Your task to perform on an android device: Check the new Jordans on Nike. Image 0: 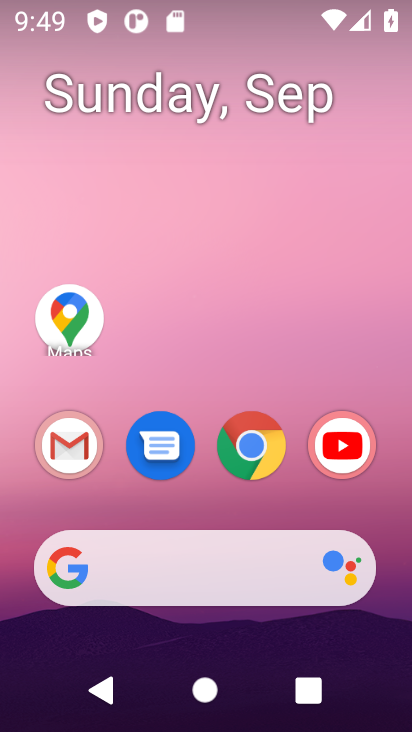
Step 0: drag from (62, 161) to (14, 318)
Your task to perform on an android device: Check the new Jordans on Nike. Image 1: 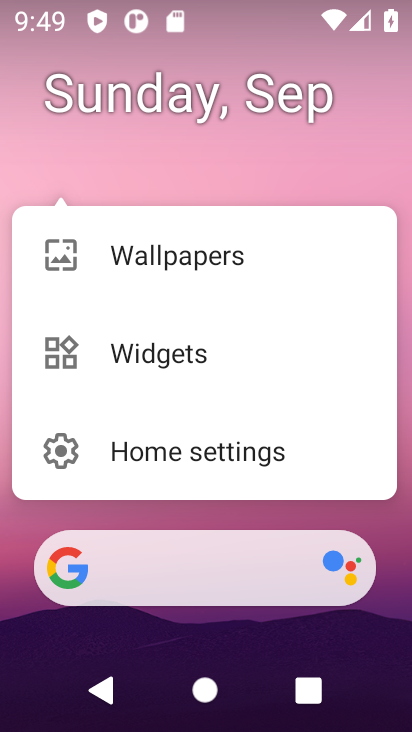
Step 1: click (275, 128)
Your task to perform on an android device: Check the new Jordans on Nike. Image 2: 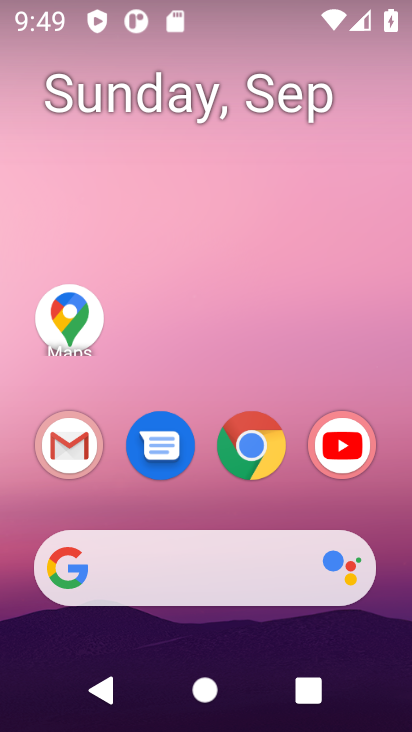
Step 2: drag from (134, 280) to (41, 95)
Your task to perform on an android device: Check the new Jordans on Nike. Image 3: 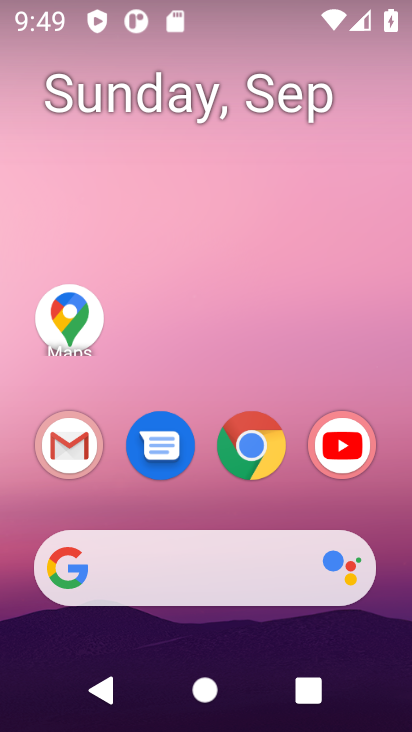
Step 3: drag from (279, 647) to (155, 54)
Your task to perform on an android device: Check the new Jordans on Nike. Image 4: 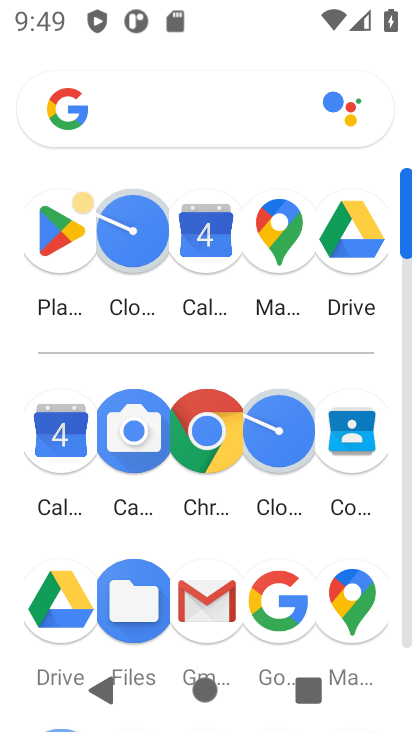
Step 4: click (207, 440)
Your task to perform on an android device: Check the new Jordans on Nike. Image 5: 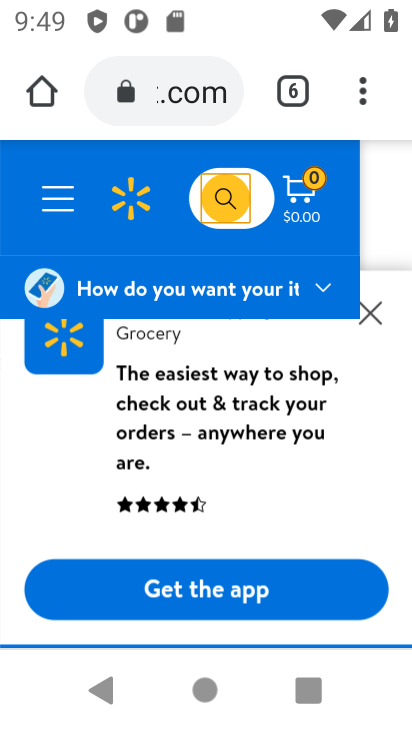
Step 5: click (166, 105)
Your task to perform on an android device: Check the new Jordans on Nike. Image 6: 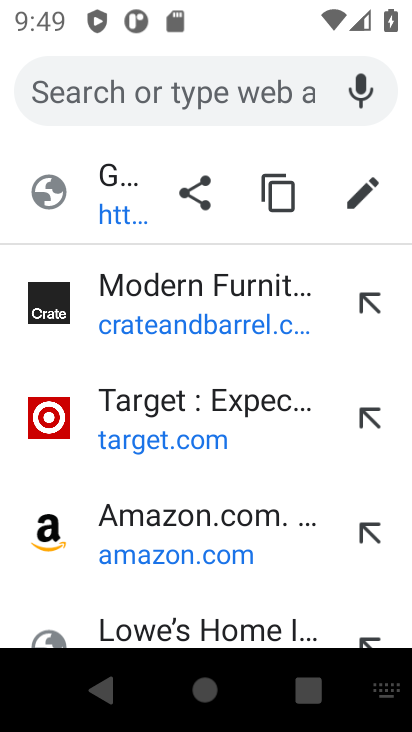
Step 6: click (213, 84)
Your task to perform on an android device: Check the new Jordans on Nike. Image 7: 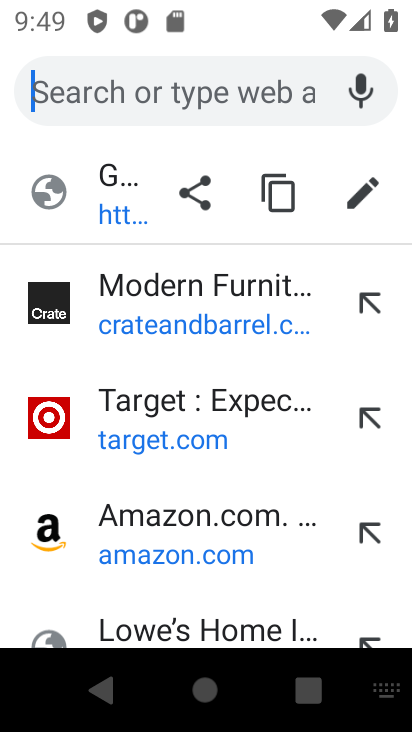
Step 7: type "Nike"
Your task to perform on an android device: Check the new Jordans on Nike. Image 8: 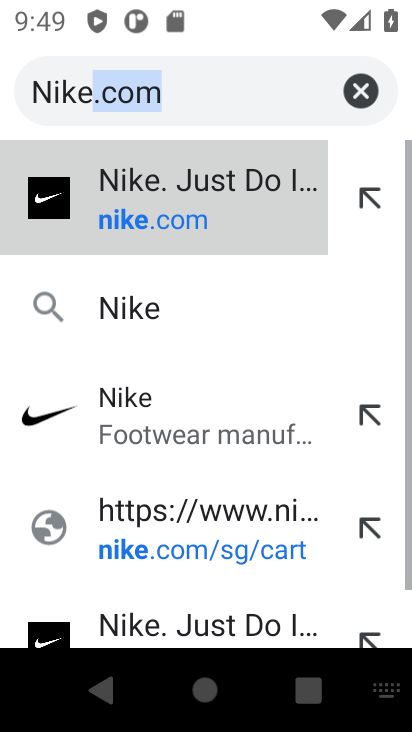
Step 8: press enter
Your task to perform on an android device: Check the new Jordans on Nike. Image 9: 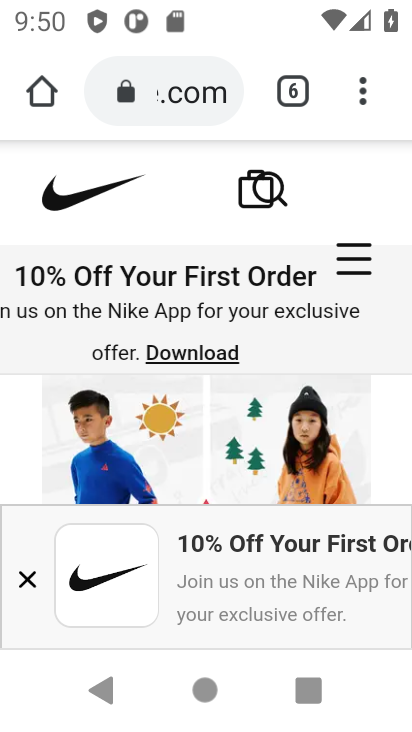
Step 9: click (310, 193)
Your task to perform on an android device: Check the new Jordans on Nike. Image 10: 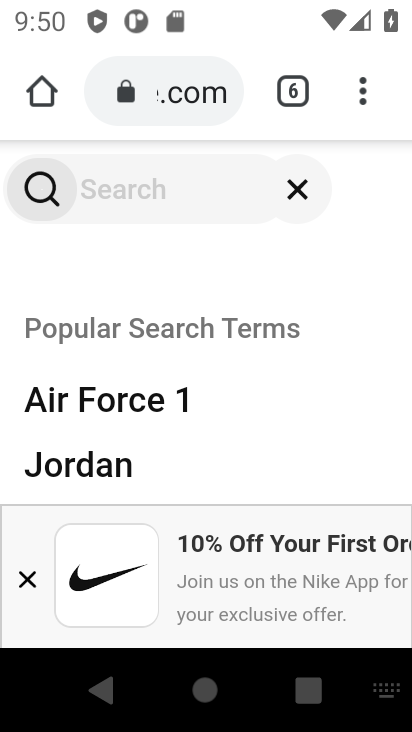
Step 10: click (192, 206)
Your task to perform on an android device: Check the new Jordans on Nike. Image 11: 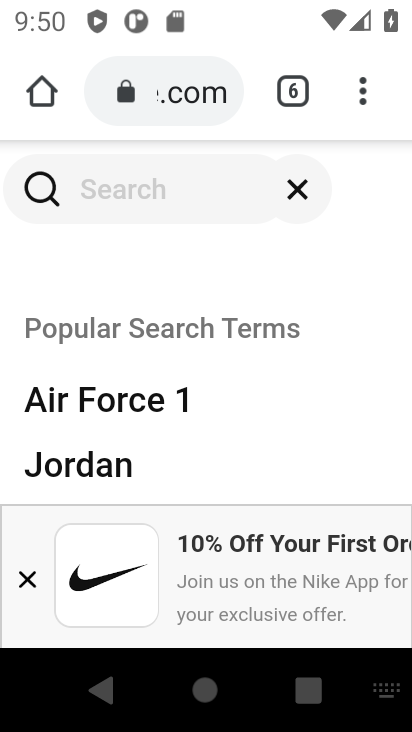
Step 11: press enter
Your task to perform on an android device: Check the new Jordans on Nike. Image 12: 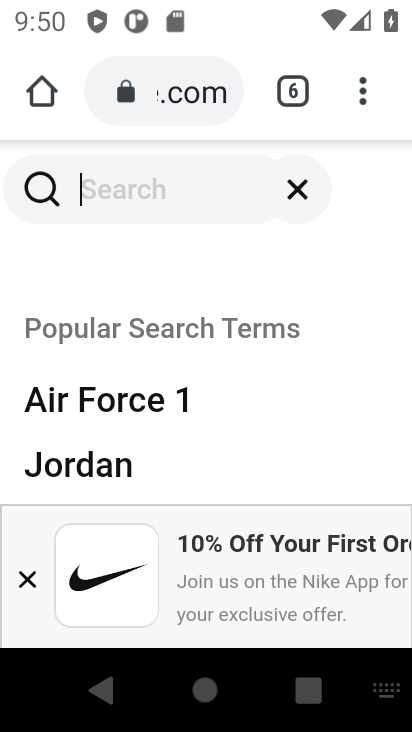
Step 12: type "new Jordans"
Your task to perform on an android device: Check the new Jordans on Nike. Image 13: 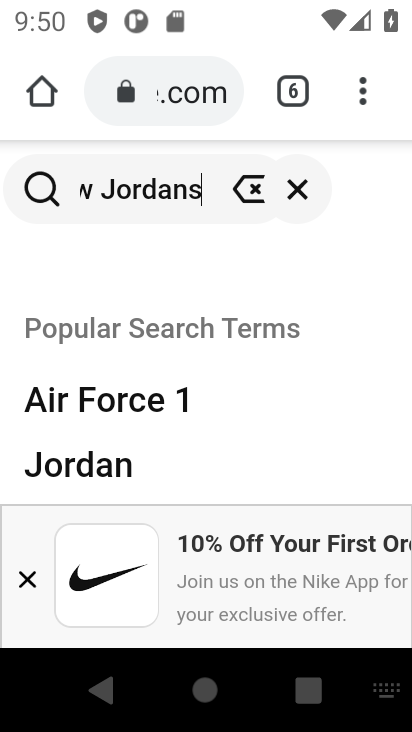
Step 13: press enter
Your task to perform on an android device: Check the new Jordans on Nike. Image 14: 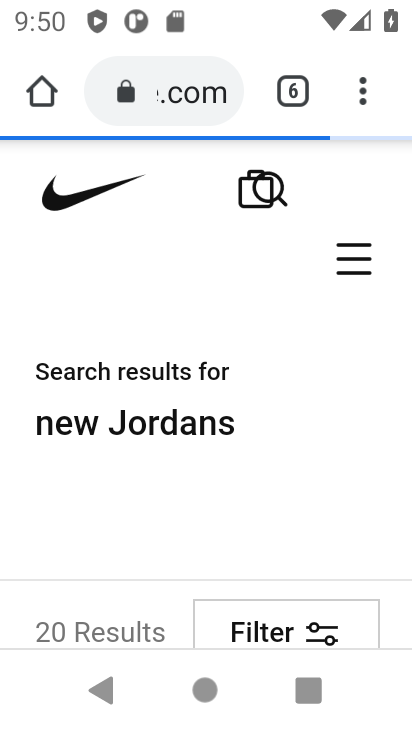
Step 14: task complete